Your task to perform on an android device: check data usage Image 0: 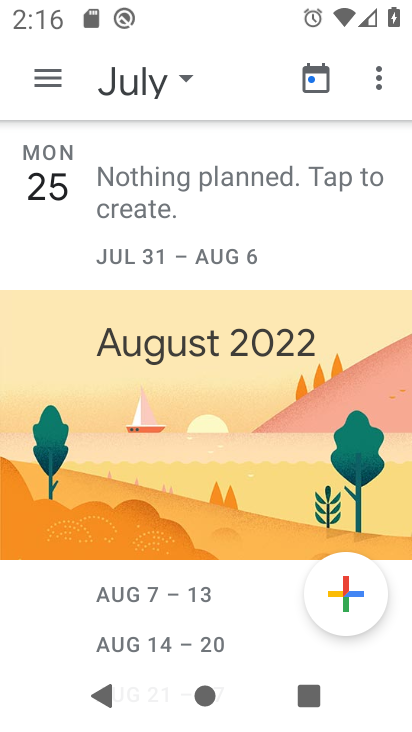
Step 0: press home button
Your task to perform on an android device: check data usage Image 1: 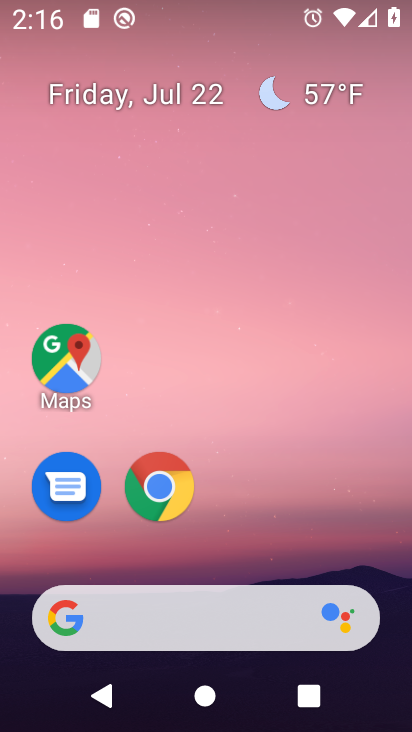
Step 1: drag from (366, 522) to (361, 147)
Your task to perform on an android device: check data usage Image 2: 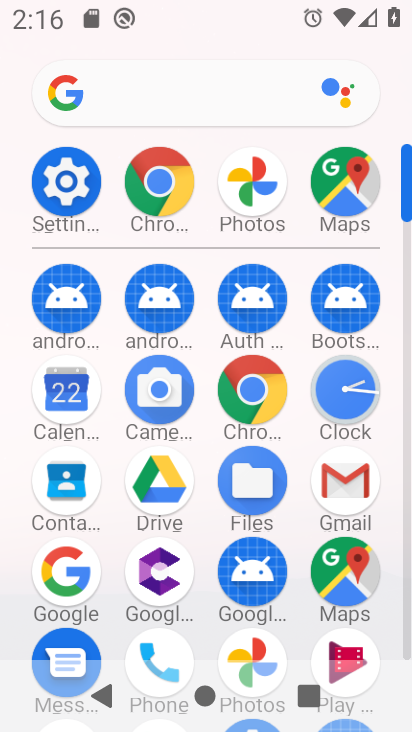
Step 2: click (69, 197)
Your task to perform on an android device: check data usage Image 3: 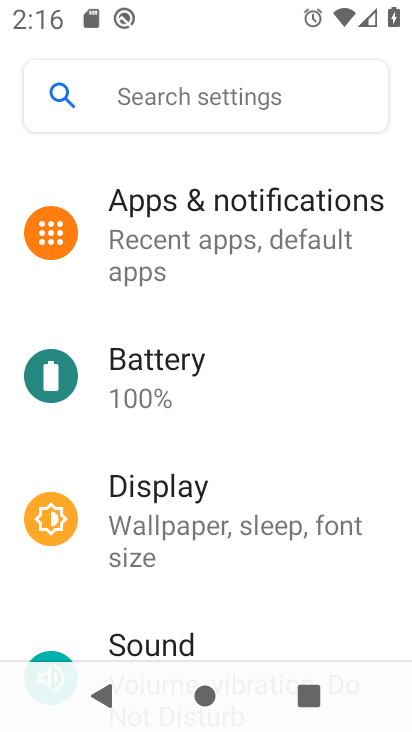
Step 3: drag from (336, 550) to (339, 470)
Your task to perform on an android device: check data usage Image 4: 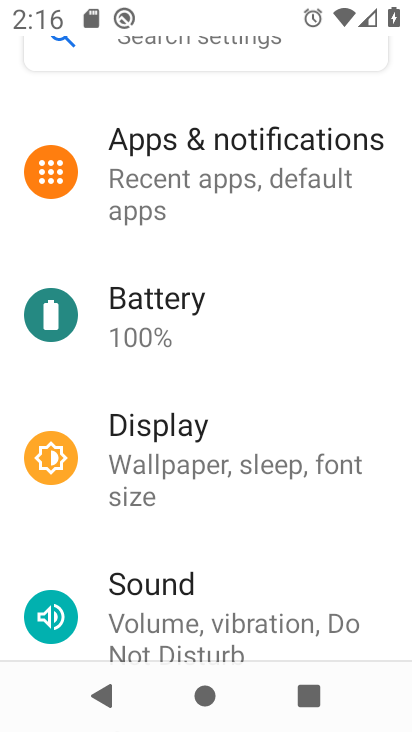
Step 4: drag from (335, 557) to (335, 457)
Your task to perform on an android device: check data usage Image 5: 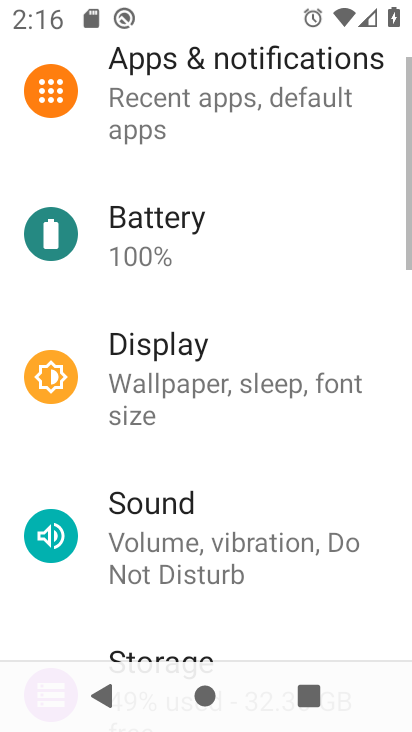
Step 5: drag from (334, 572) to (340, 479)
Your task to perform on an android device: check data usage Image 6: 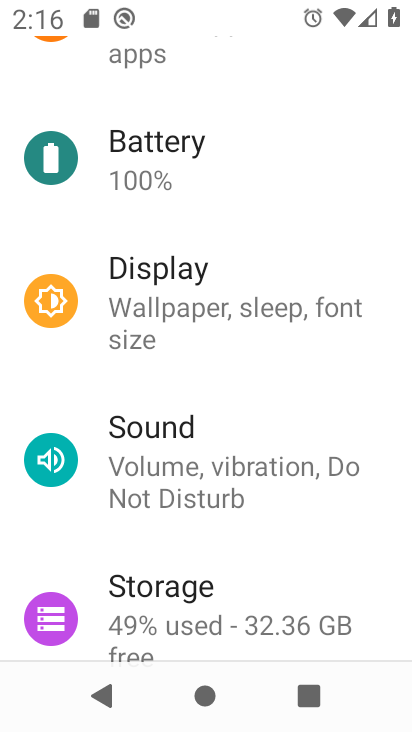
Step 6: drag from (338, 550) to (356, 444)
Your task to perform on an android device: check data usage Image 7: 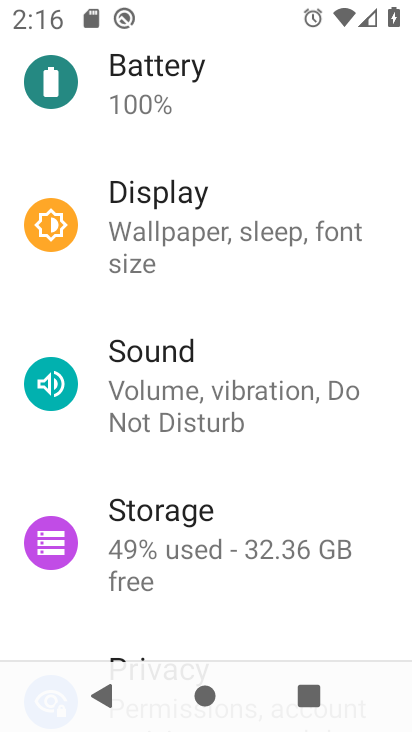
Step 7: drag from (357, 586) to (359, 414)
Your task to perform on an android device: check data usage Image 8: 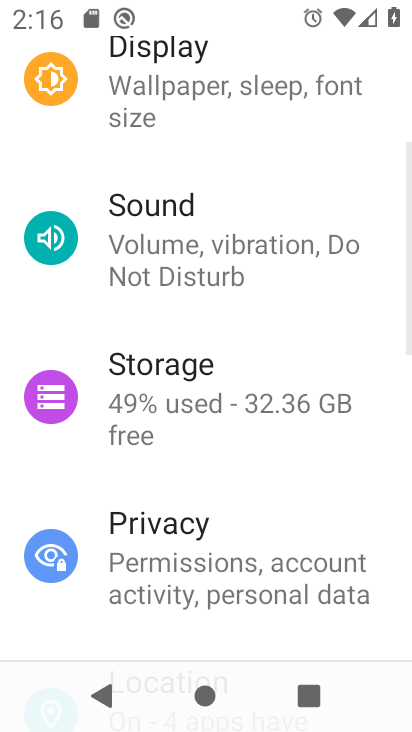
Step 8: drag from (353, 526) to (349, 396)
Your task to perform on an android device: check data usage Image 9: 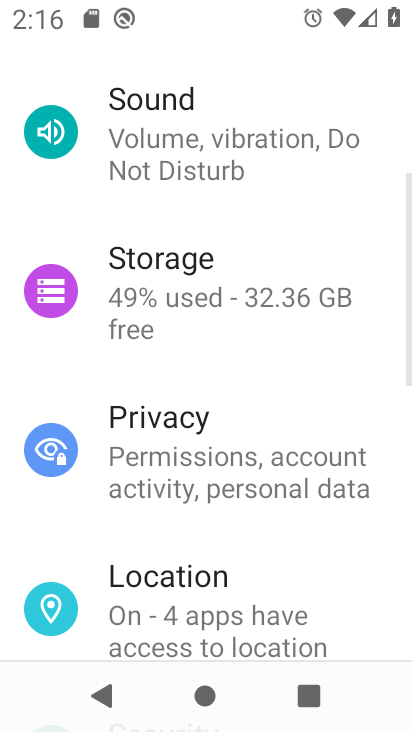
Step 9: drag from (336, 568) to (336, 450)
Your task to perform on an android device: check data usage Image 10: 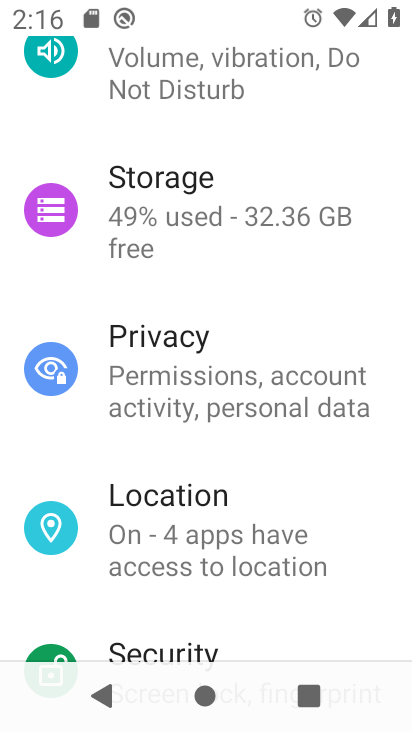
Step 10: drag from (354, 297) to (355, 371)
Your task to perform on an android device: check data usage Image 11: 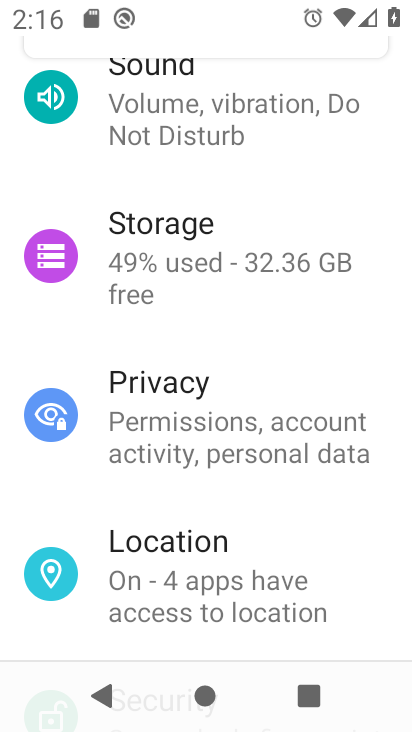
Step 11: drag from (363, 292) to (358, 379)
Your task to perform on an android device: check data usage Image 12: 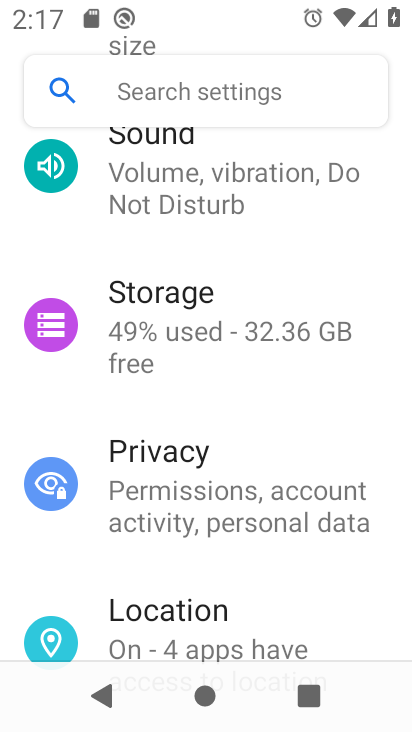
Step 12: drag from (366, 249) to (366, 333)
Your task to perform on an android device: check data usage Image 13: 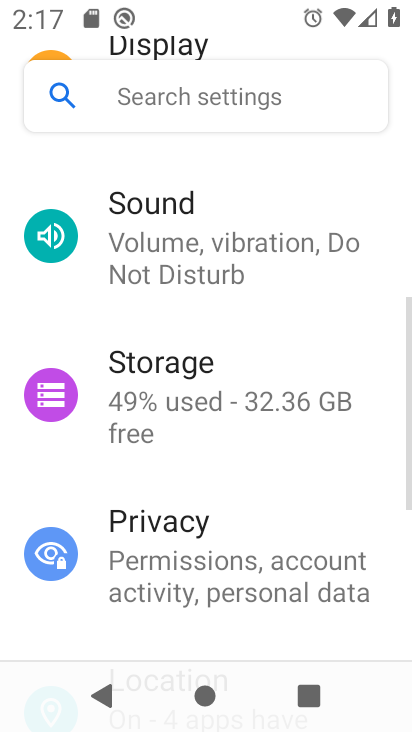
Step 13: drag from (366, 267) to (368, 340)
Your task to perform on an android device: check data usage Image 14: 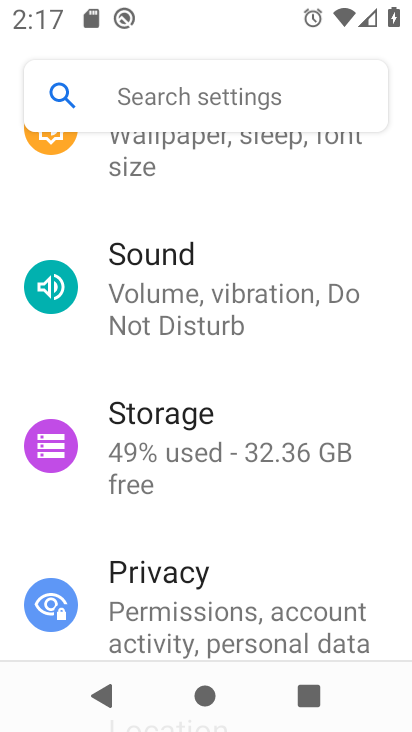
Step 14: drag from (375, 244) to (375, 333)
Your task to perform on an android device: check data usage Image 15: 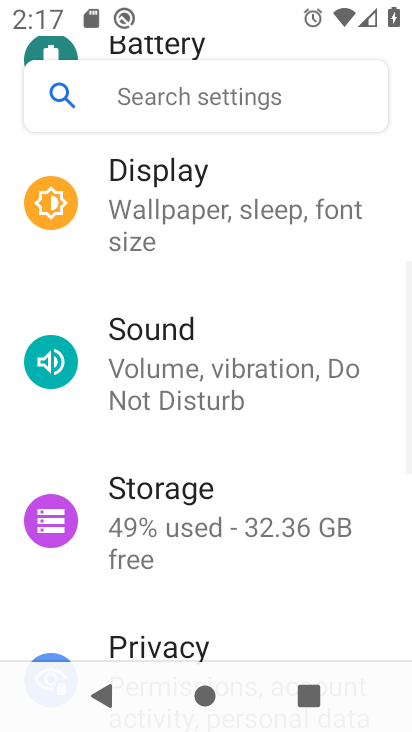
Step 15: drag from (375, 237) to (374, 314)
Your task to perform on an android device: check data usage Image 16: 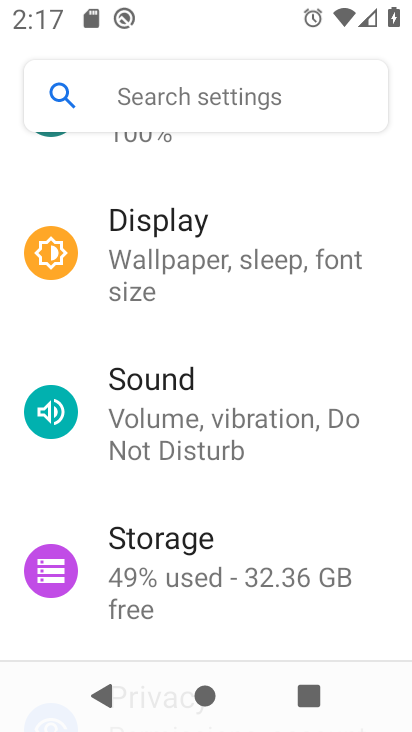
Step 16: drag from (373, 212) to (373, 301)
Your task to perform on an android device: check data usage Image 17: 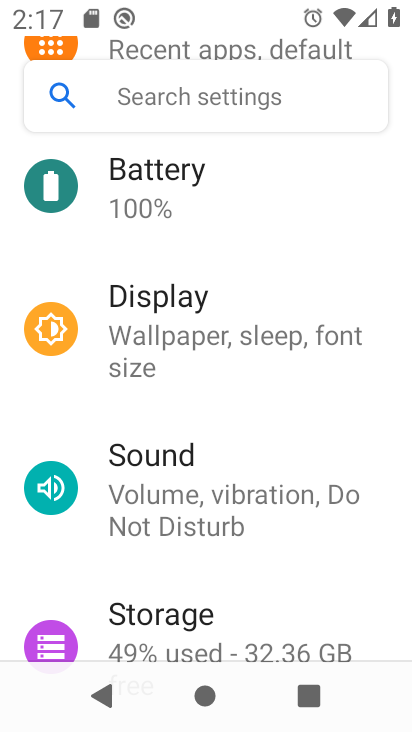
Step 17: drag from (371, 209) to (369, 294)
Your task to perform on an android device: check data usage Image 18: 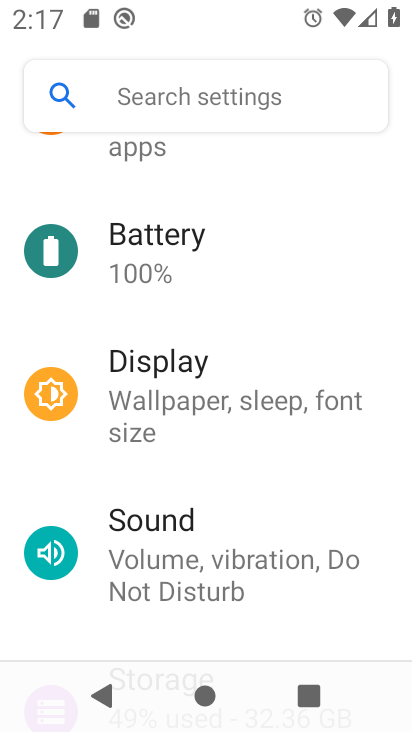
Step 18: drag from (369, 205) to (368, 294)
Your task to perform on an android device: check data usage Image 19: 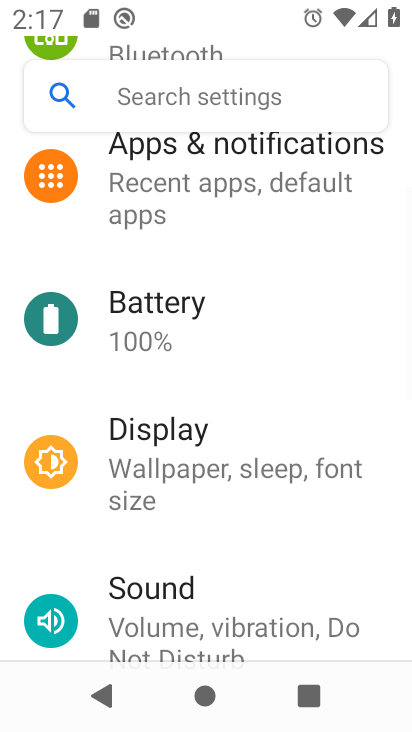
Step 19: drag from (366, 201) to (366, 296)
Your task to perform on an android device: check data usage Image 20: 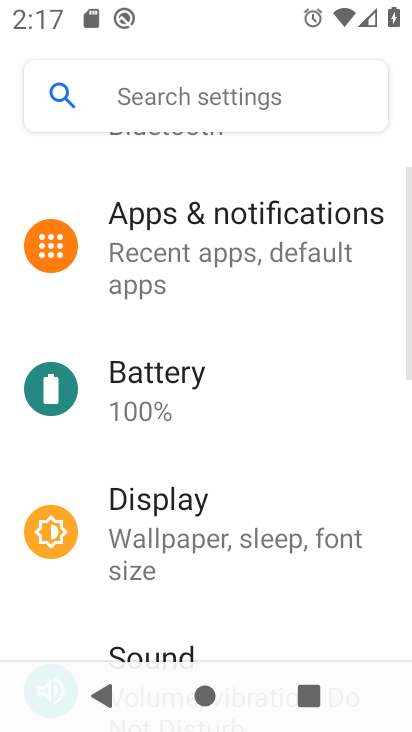
Step 20: drag from (360, 174) to (360, 278)
Your task to perform on an android device: check data usage Image 21: 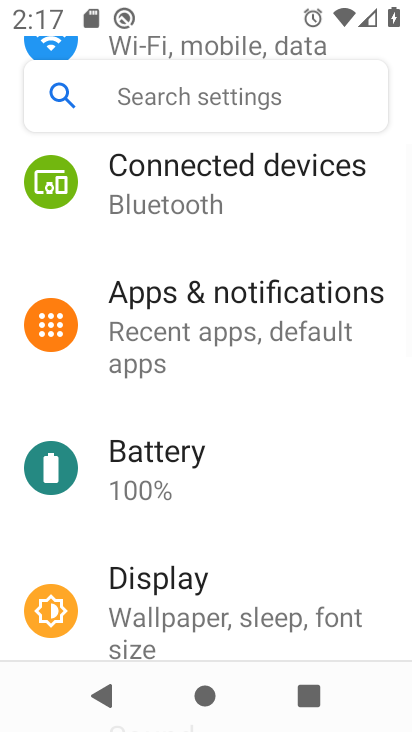
Step 21: drag from (354, 201) to (354, 319)
Your task to perform on an android device: check data usage Image 22: 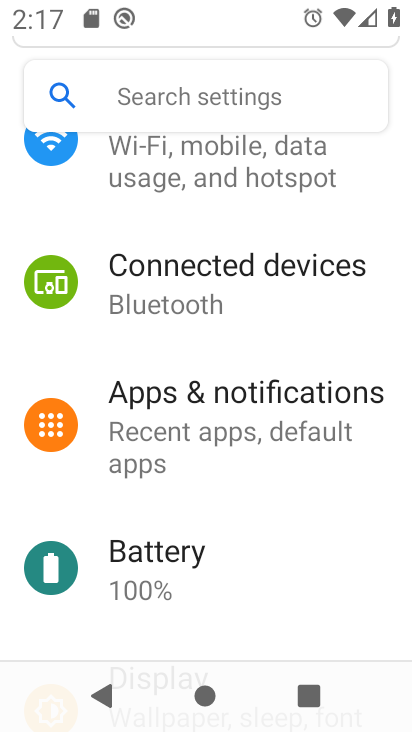
Step 22: drag from (362, 148) to (361, 306)
Your task to perform on an android device: check data usage Image 23: 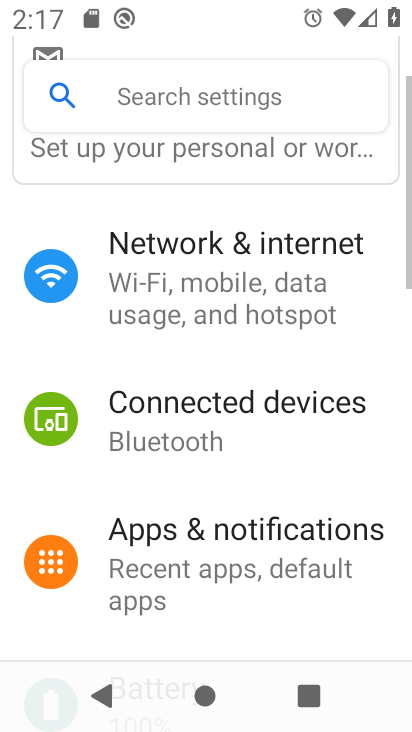
Step 23: click (313, 290)
Your task to perform on an android device: check data usage Image 24: 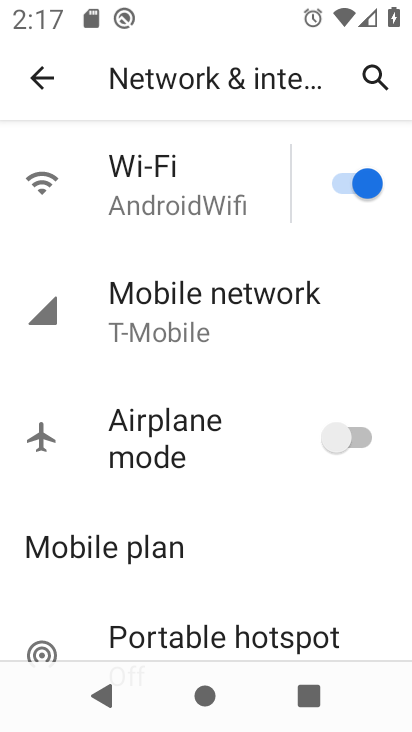
Step 24: click (235, 324)
Your task to perform on an android device: check data usage Image 25: 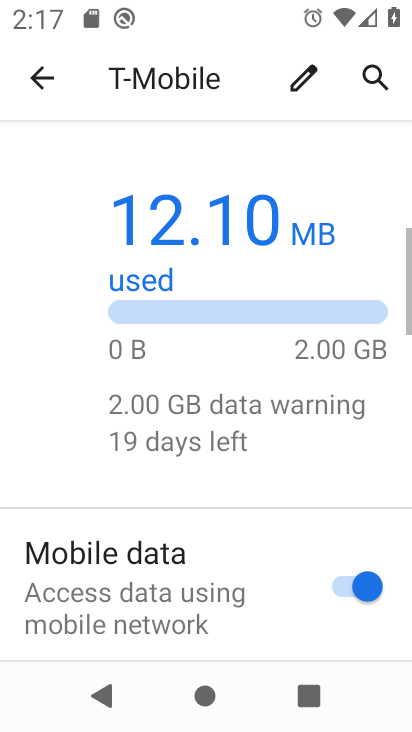
Step 25: drag from (242, 419) to (247, 319)
Your task to perform on an android device: check data usage Image 26: 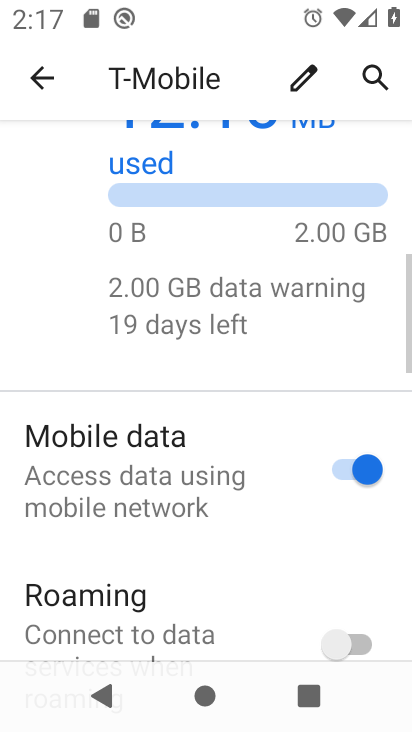
Step 26: drag from (252, 460) to (256, 350)
Your task to perform on an android device: check data usage Image 27: 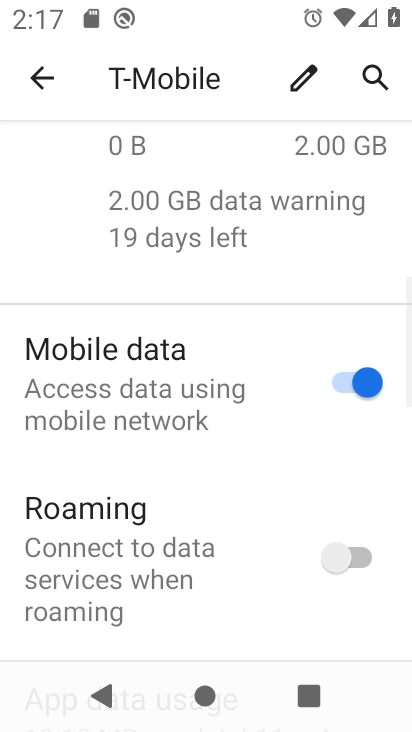
Step 27: drag from (256, 486) to (258, 377)
Your task to perform on an android device: check data usage Image 28: 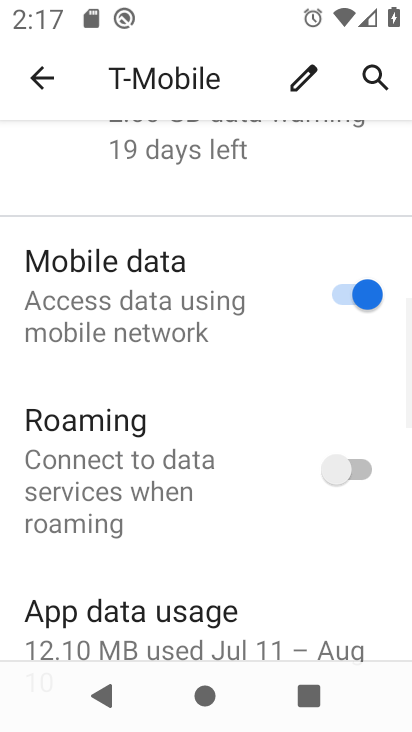
Step 28: drag from (248, 524) to (249, 393)
Your task to perform on an android device: check data usage Image 29: 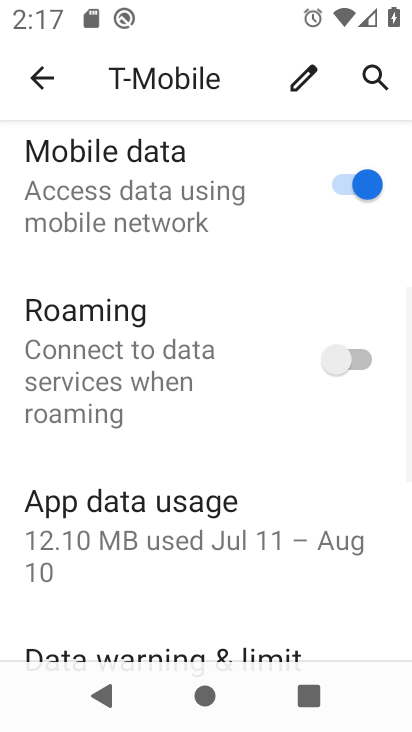
Step 29: drag from (251, 573) to (257, 409)
Your task to perform on an android device: check data usage Image 30: 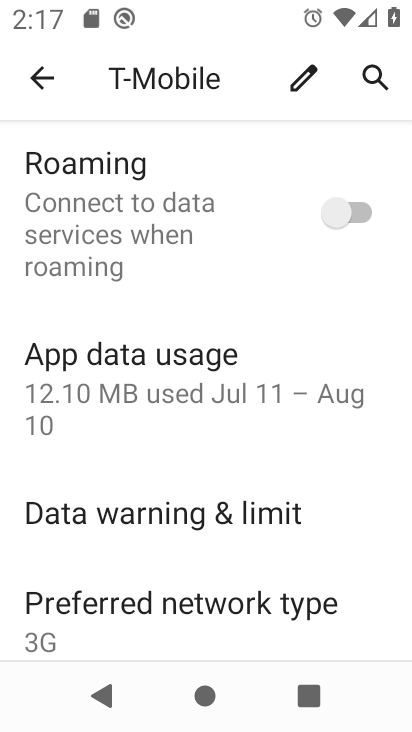
Step 30: drag from (251, 471) to (251, 357)
Your task to perform on an android device: check data usage Image 31: 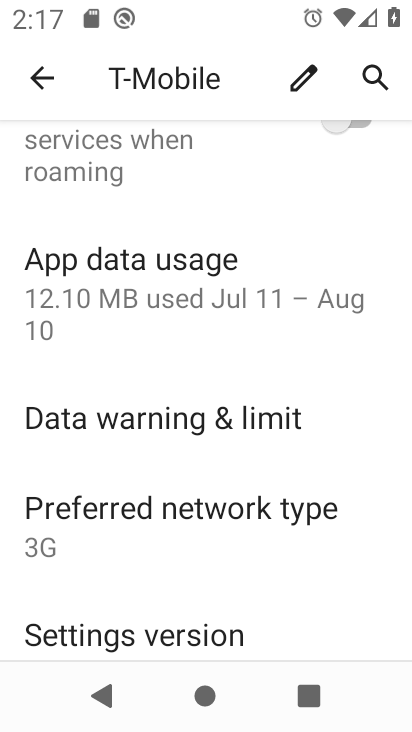
Step 31: click (235, 295)
Your task to perform on an android device: check data usage Image 32: 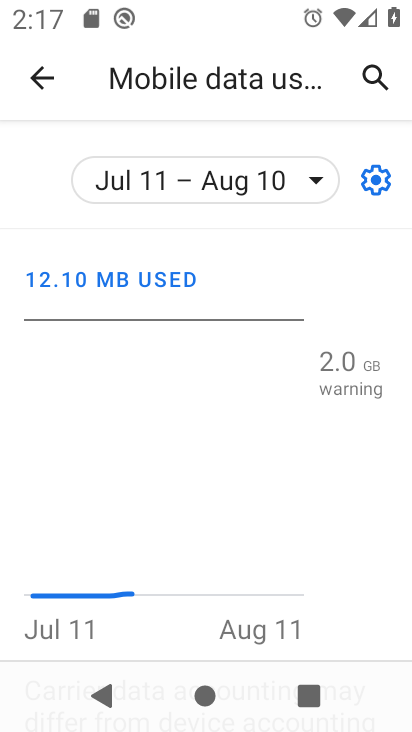
Step 32: task complete